Your task to perform on an android device: choose inbox layout in the gmail app Image 0: 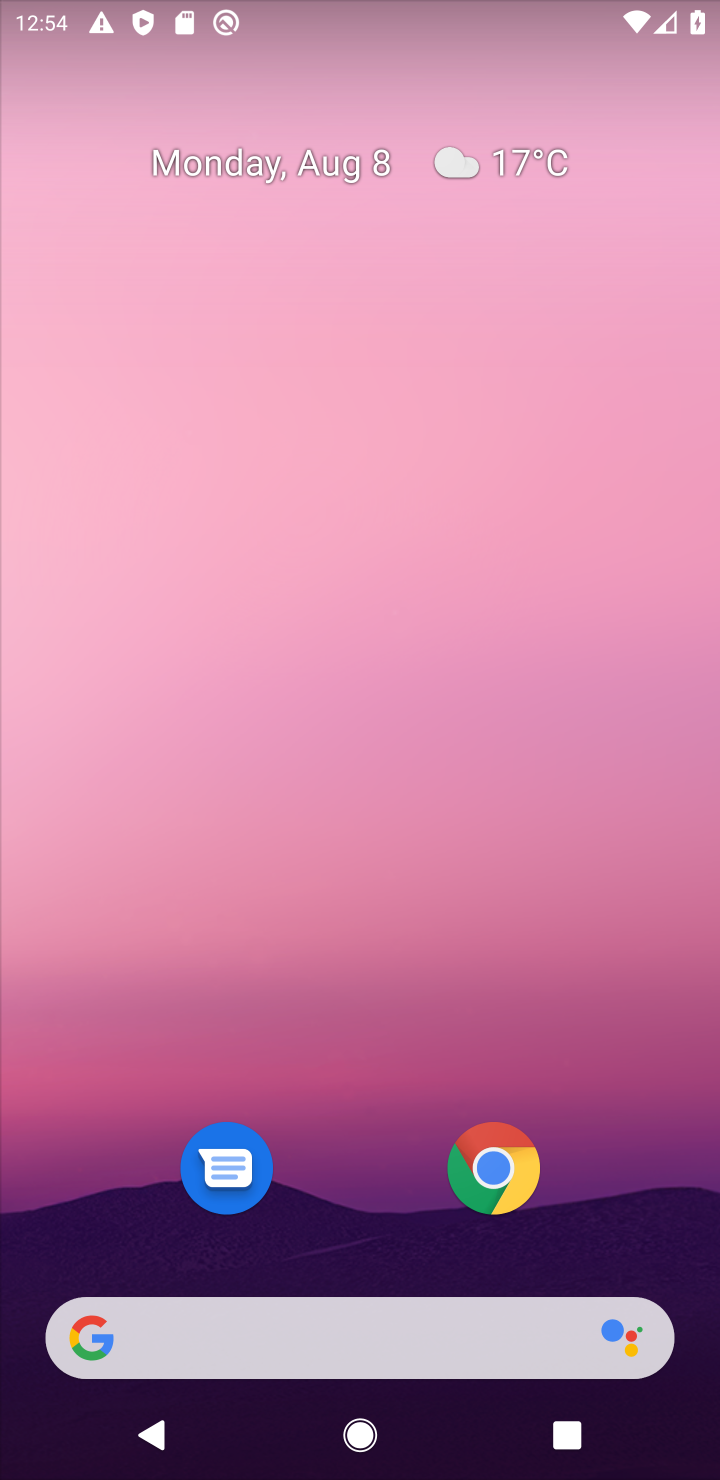
Step 0: drag from (39, 1446) to (469, 55)
Your task to perform on an android device: choose inbox layout in the gmail app Image 1: 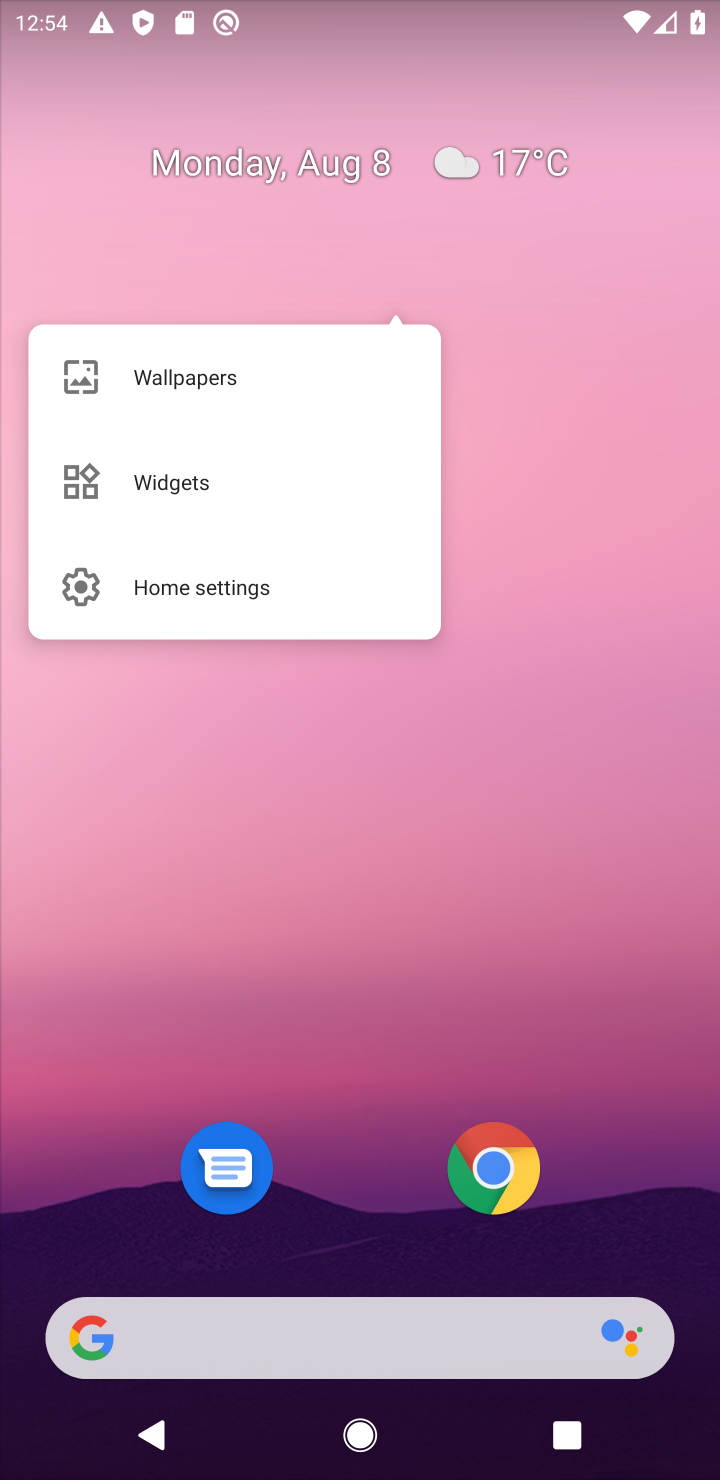
Step 1: task complete